Your task to perform on an android device: Open notification settings Image 0: 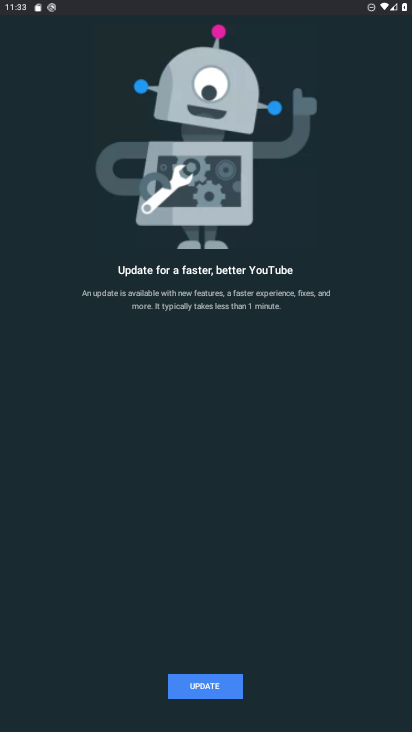
Step 0: press home button
Your task to perform on an android device: Open notification settings Image 1: 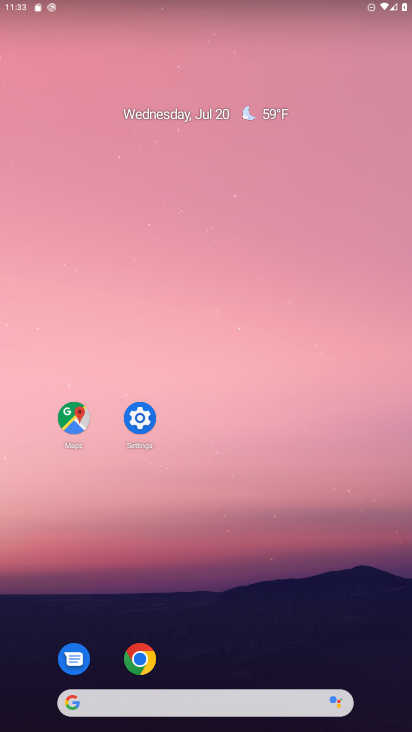
Step 1: click (149, 420)
Your task to perform on an android device: Open notification settings Image 2: 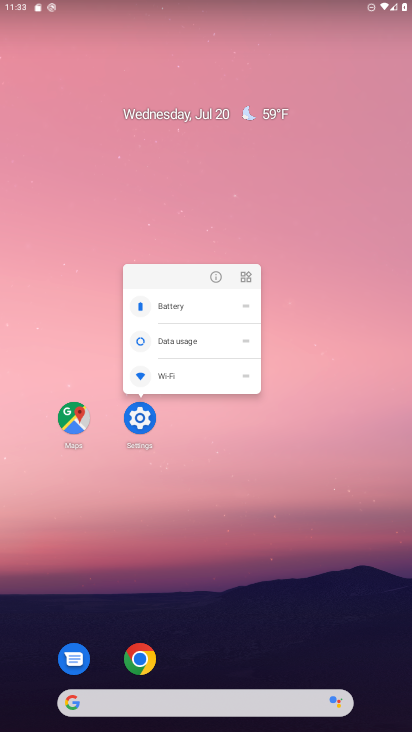
Step 2: click (145, 421)
Your task to perform on an android device: Open notification settings Image 3: 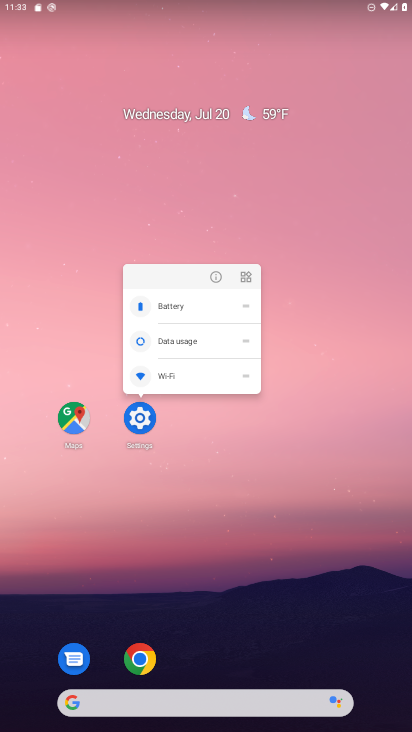
Step 3: click (137, 419)
Your task to perform on an android device: Open notification settings Image 4: 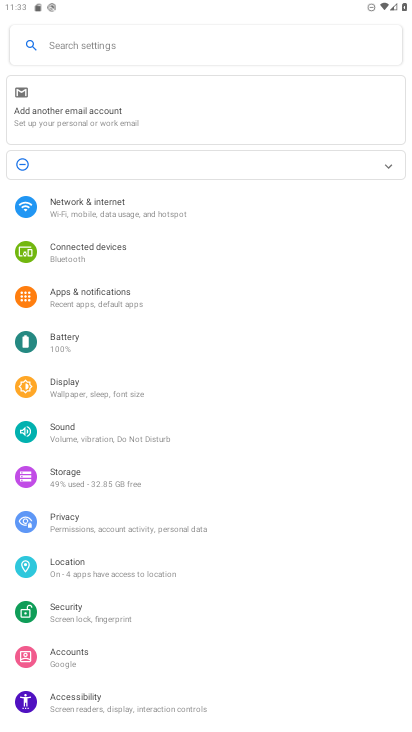
Step 4: click (79, 303)
Your task to perform on an android device: Open notification settings Image 5: 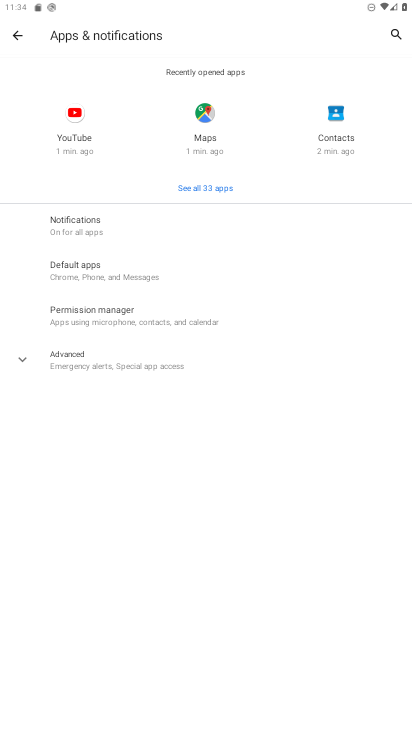
Step 5: click (72, 227)
Your task to perform on an android device: Open notification settings Image 6: 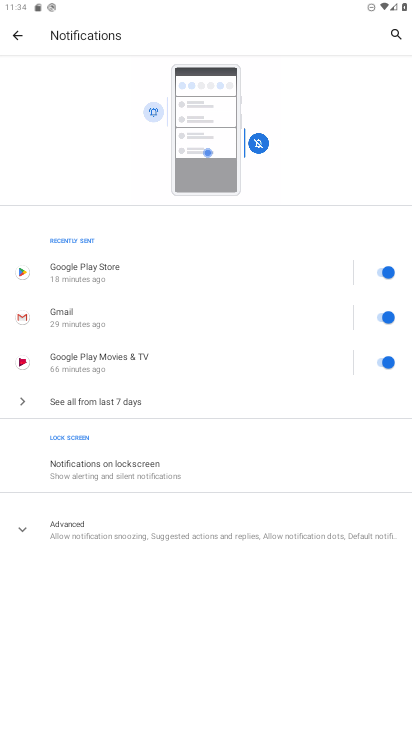
Step 6: click (22, 524)
Your task to perform on an android device: Open notification settings Image 7: 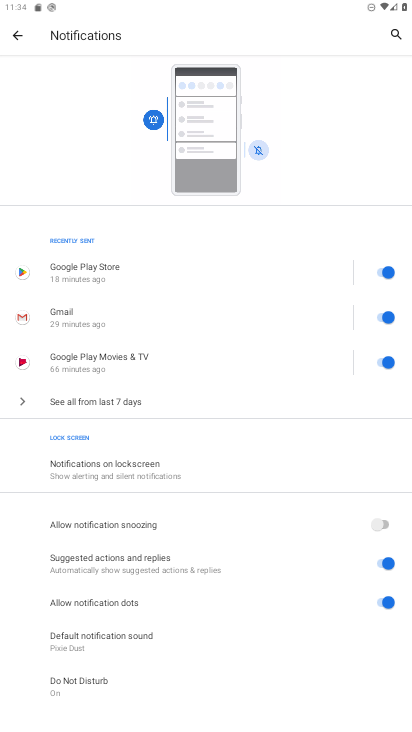
Step 7: task complete